Your task to perform on an android device: Is it going to rain this weekend? Image 0: 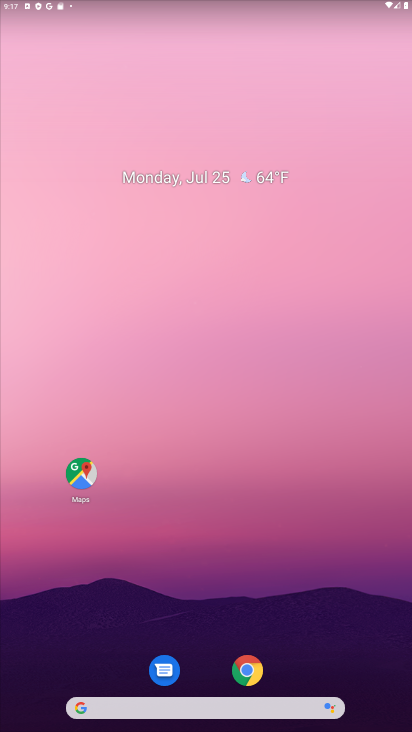
Step 0: drag from (372, 608) to (265, 23)
Your task to perform on an android device: Is it going to rain this weekend? Image 1: 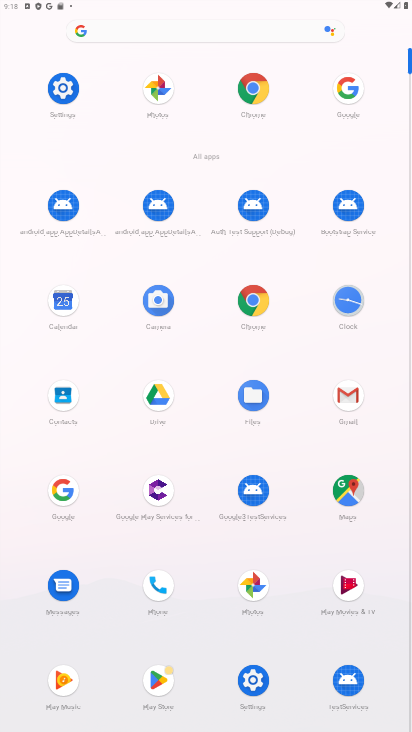
Step 1: click (60, 499)
Your task to perform on an android device: Is it going to rain this weekend? Image 2: 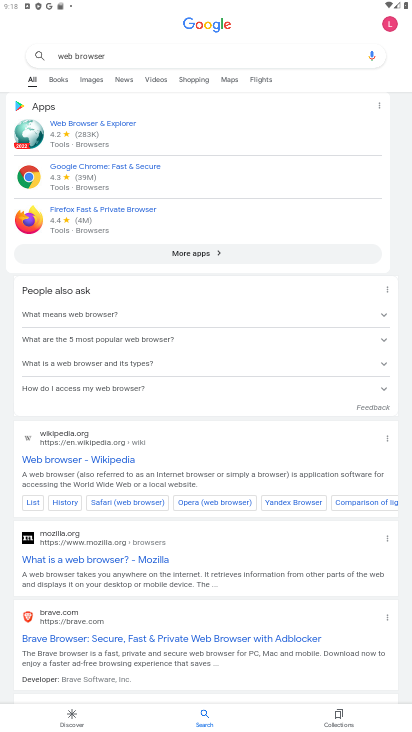
Step 2: press back button
Your task to perform on an android device: Is it going to rain this weekend? Image 3: 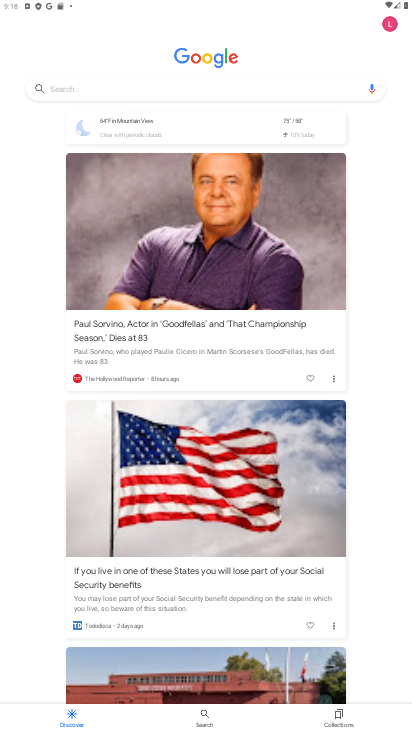
Step 3: click (181, 87)
Your task to perform on an android device: Is it going to rain this weekend? Image 4: 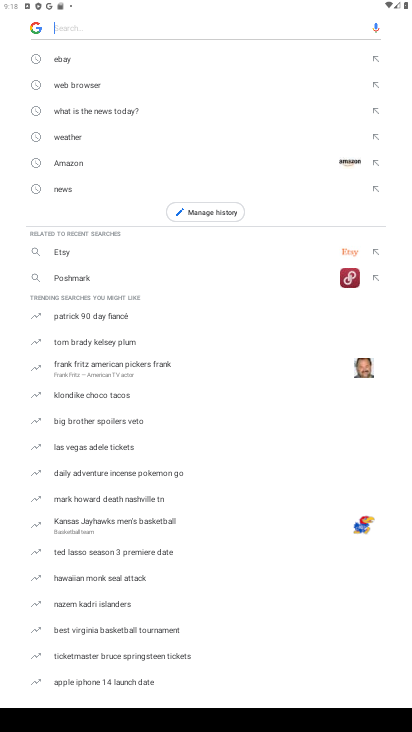
Step 4: type "Is it going to rain this weekend?"
Your task to perform on an android device: Is it going to rain this weekend? Image 5: 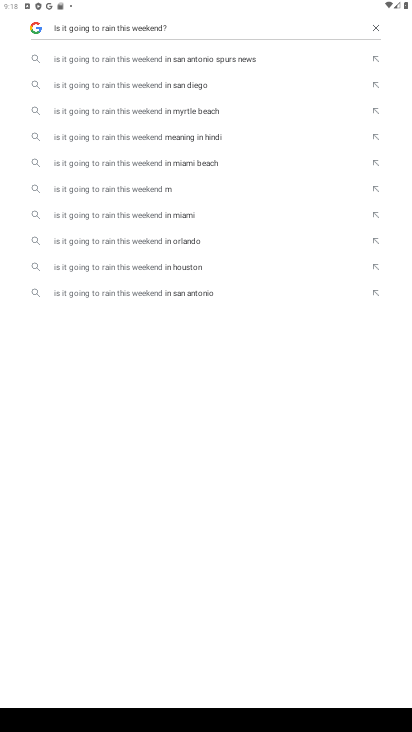
Step 5: task complete